Your task to perform on an android device: change the clock display to analog Image 0: 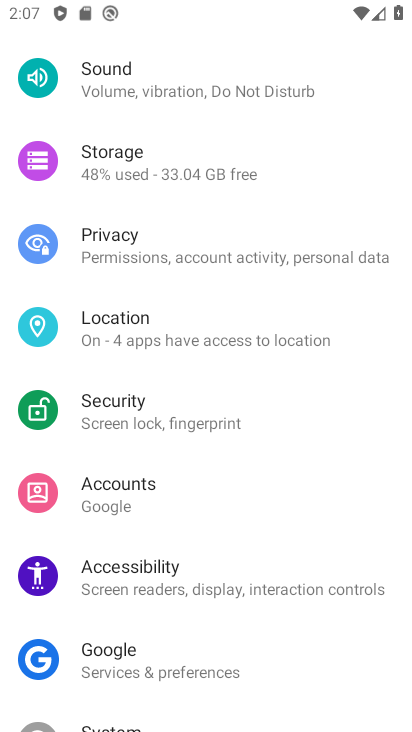
Step 0: press home button
Your task to perform on an android device: change the clock display to analog Image 1: 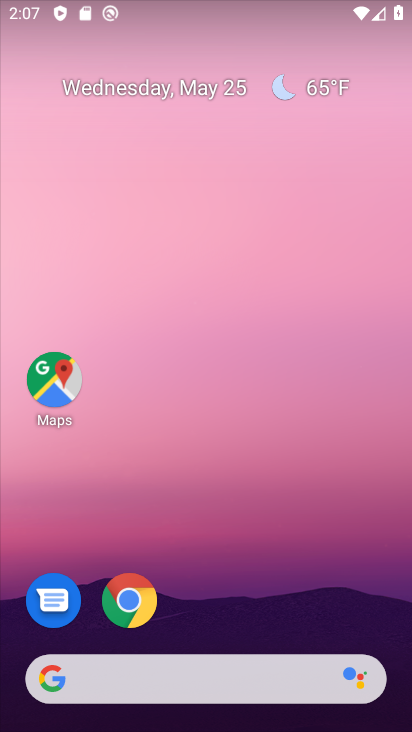
Step 1: drag from (256, 525) to (283, 117)
Your task to perform on an android device: change the clock display to analog Image 2: 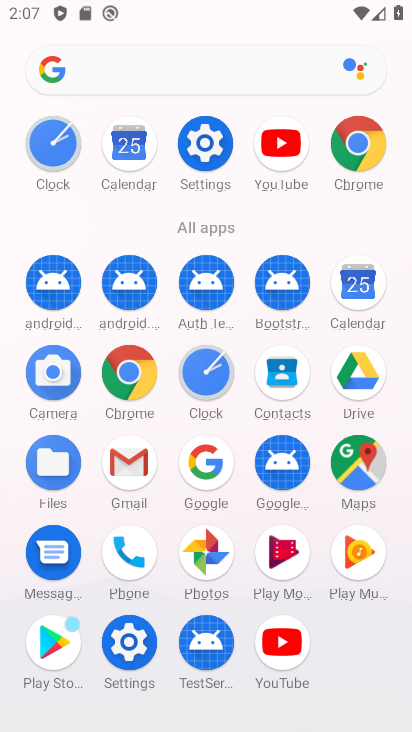
Step 2: click (204, 380)
Your task to perform on an android device: change the clock display to analog Image 3: 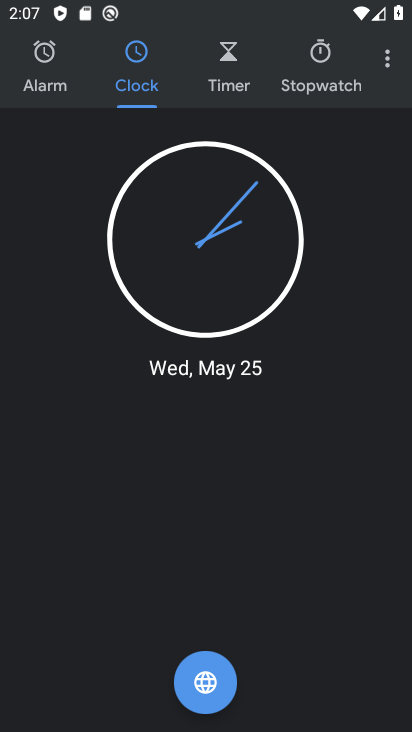
Step 3: click (386, 52)
Your task to perform on an android device: change the clock display to analog Image 4: 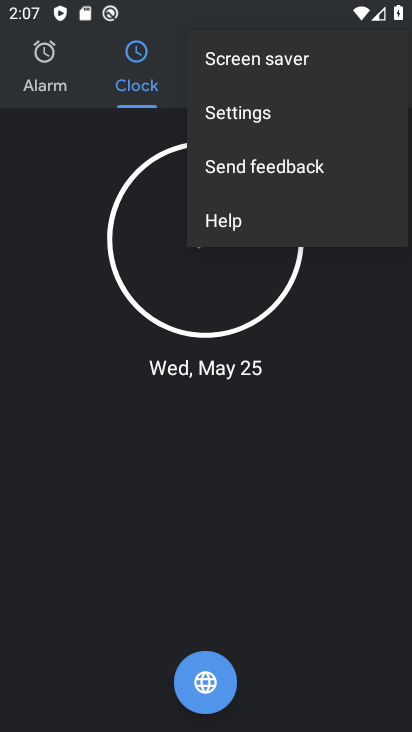
Step 4: click (238, 124)
Your task to perform on an android device: change the clock display to analog Image 5: 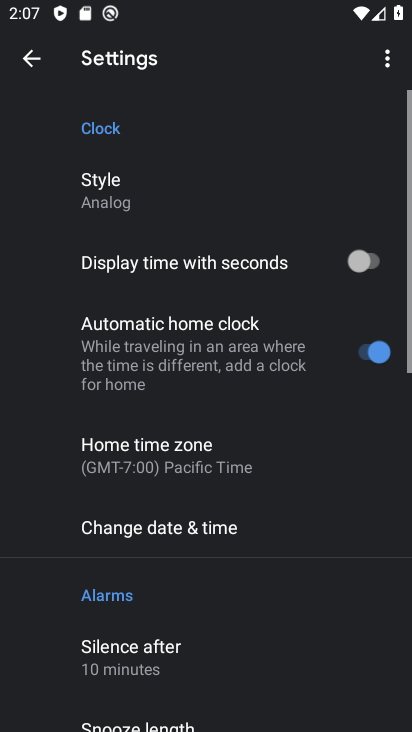
Step 5: click (109, 184)
Your task to perform on an android device: change the clock display to analog Image 6: 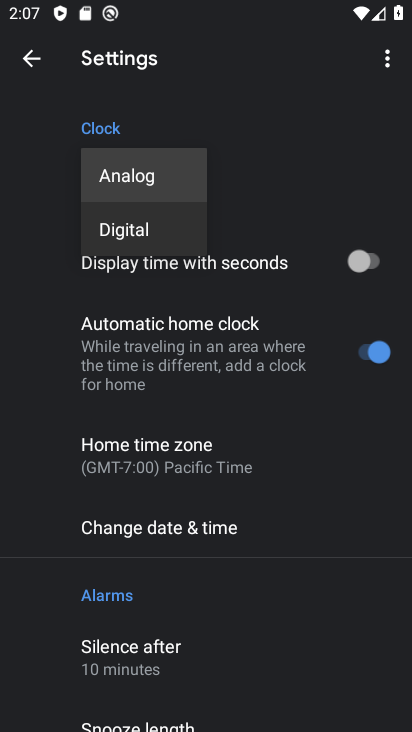
Step 6: task complete